Your task to perform on an android device: Show me recent news Image 0: 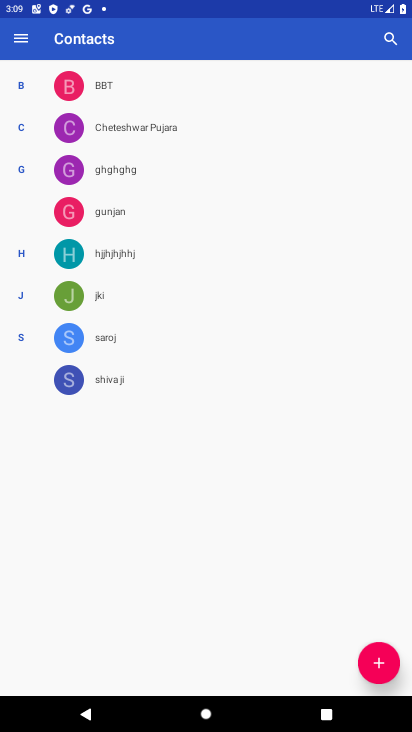
Step 0: press home button
Your task to perform on an android device: Show me recent news Image 1: 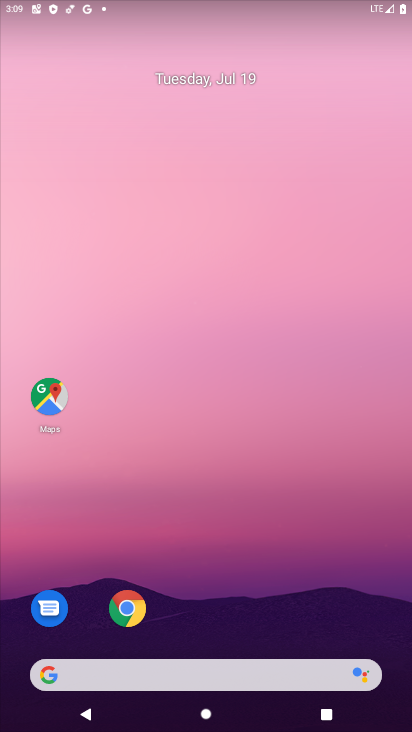
Step 1: drag from (297, 598) to (289, 29)
Your task to perform on an android device: Show me recent news Image 2: 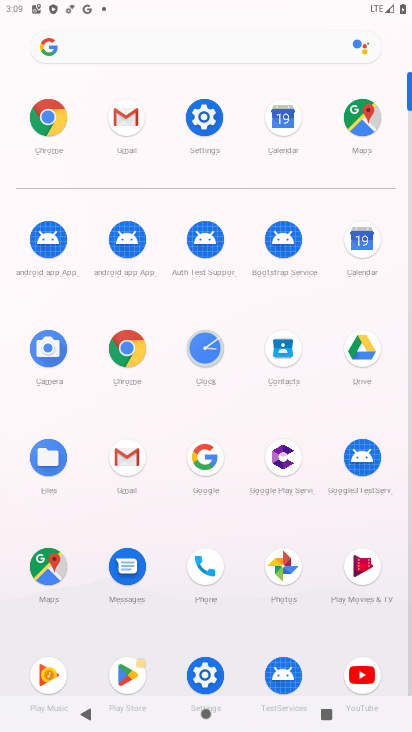
Step 2: click (123, 352)
Your task to perform on an android device: Show me recent news Image 3: 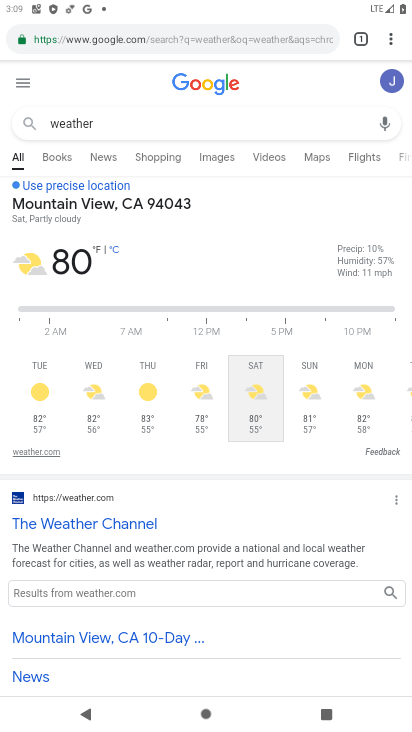
Step 3: click (222, 45)
Your task to perform on an android device: Show me recent news Image 4: 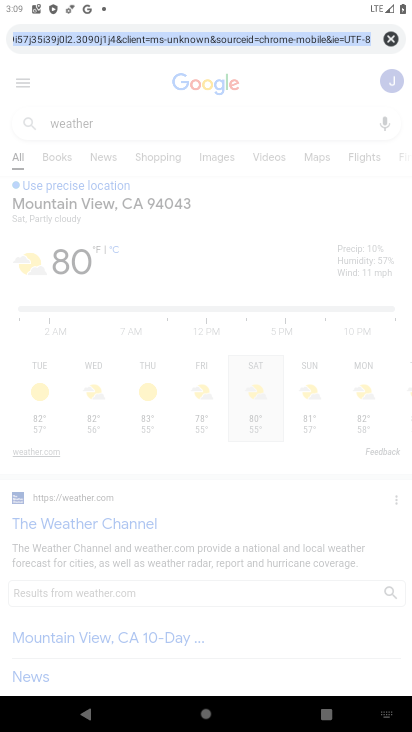
Step 4: type "news"
Your task to perform on an android device: Show me recent news Image 5: 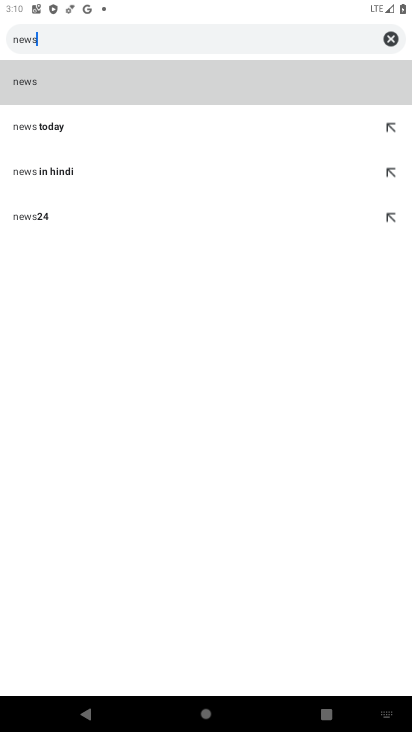
Step 5: click (17, 85)
Your task to perform on an android device: Show me recent news Image 6: 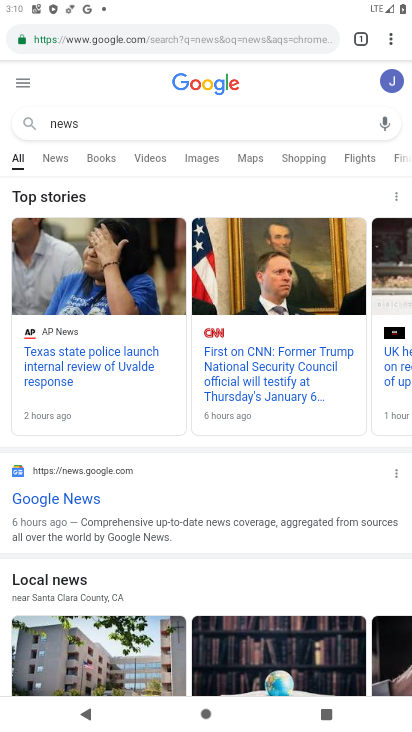
Step 6: click (44, 502)
Your task to perform on an android device: Show me recent news Image 7: 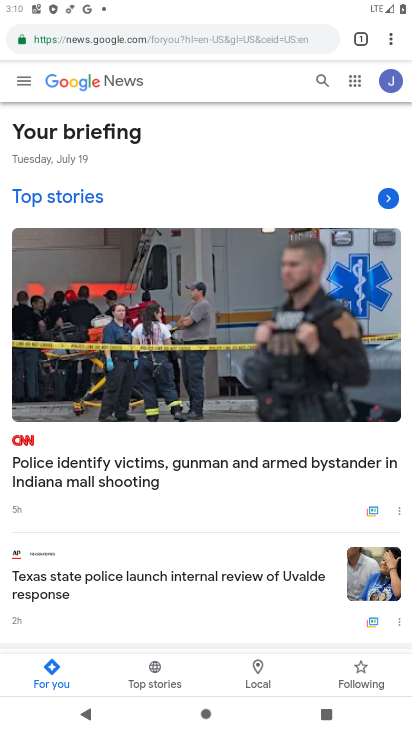
Step 7: task complete